Your task to perform on an android device: Open the Play Movies app and select the watchlist tab. Image 0: 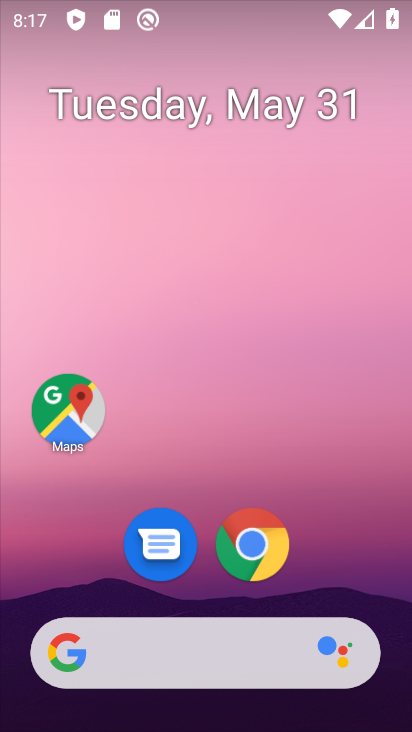
Step 0: drag from (192, 629) to (222, 191)
Your task to perform on an android device: Open the Play Movies app and select the watchlist tab. Image 1: 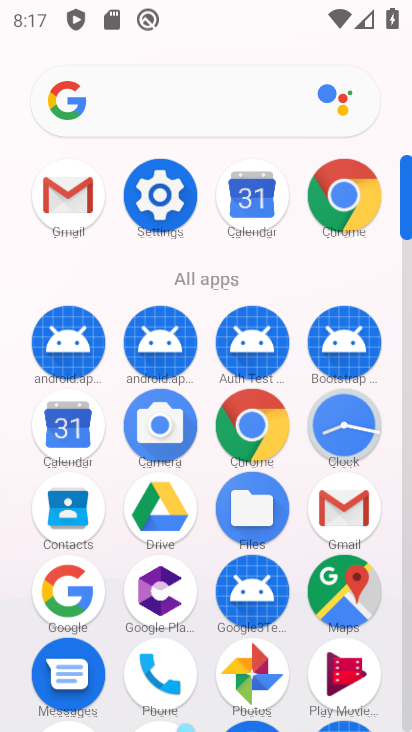
Step 1: click (346, 662)
Your task to perform on an android device: Open the Play Movies app and select the watchlist tab. Image 2: 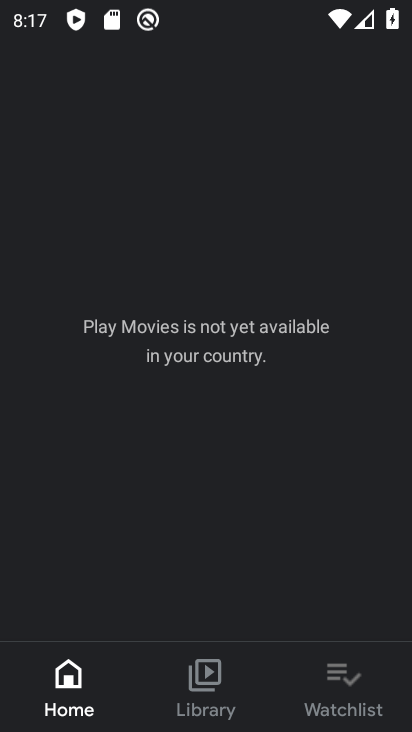
Step 2: click (327, 679)
Your task to perform on an android device: Open the Play Movies app and select the watchlist tab. Image 3: 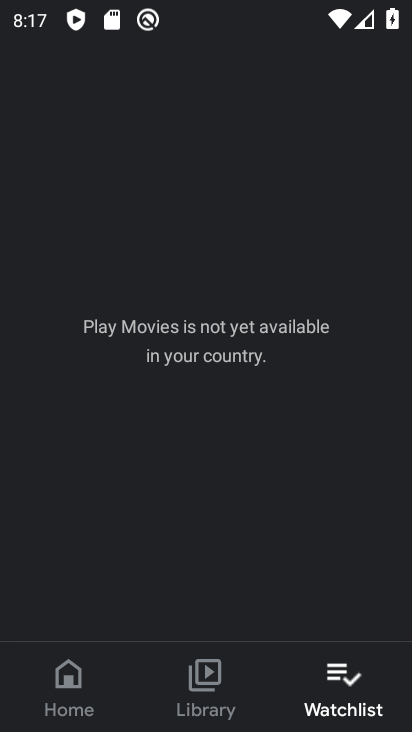
Step 3: task complete